Your task to perform on an android device: turn off data saver in the chrome app Image 0: 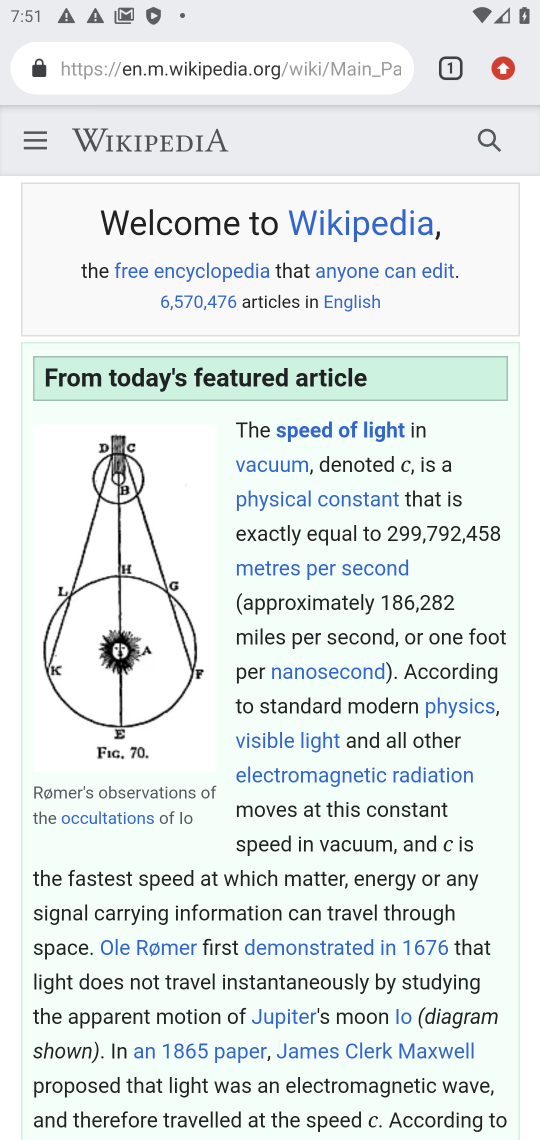
Step 0: click (501, 62)
Your task to perform on an android device: turn off data saver in the chrome app Image 1: 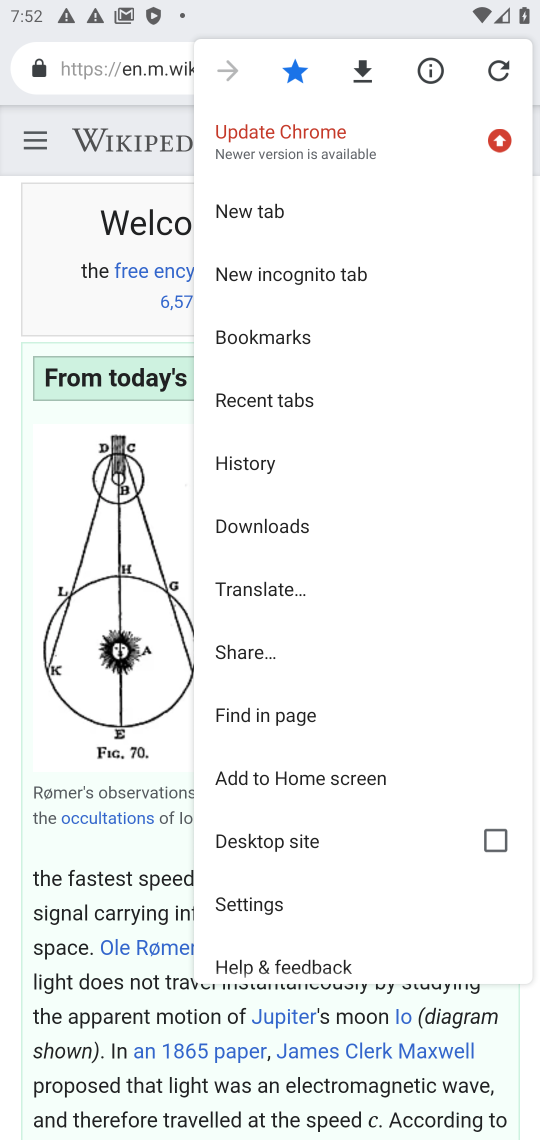
Step 1: click (282, 899)
Your task to perform on an android device: turn off data saver in the chrome app Image 2: 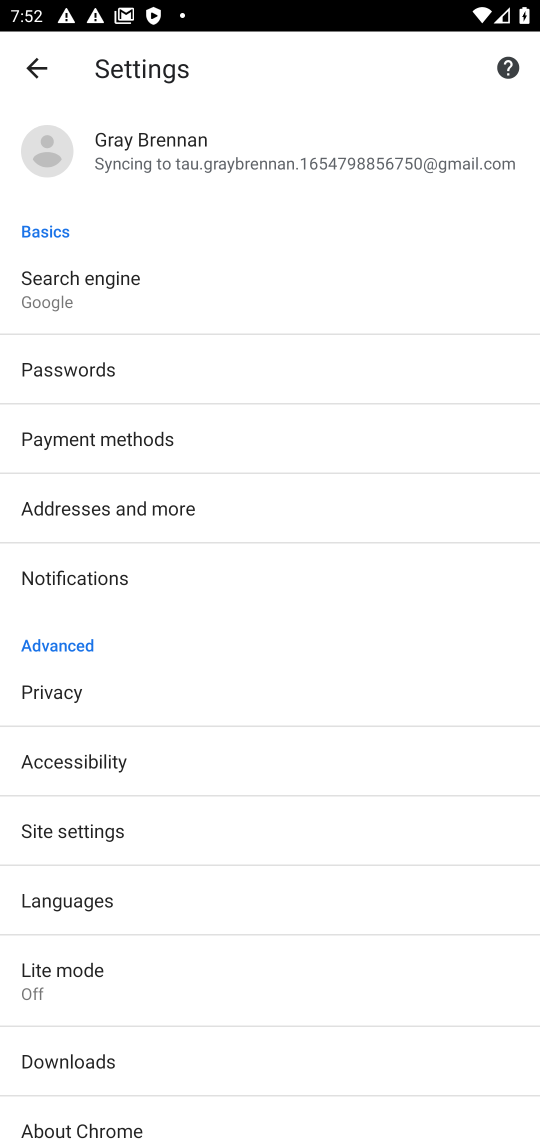
Step 2: click (103, 995)
Your task to perform on an android device: turn off data saver in the chrome app Image 3: 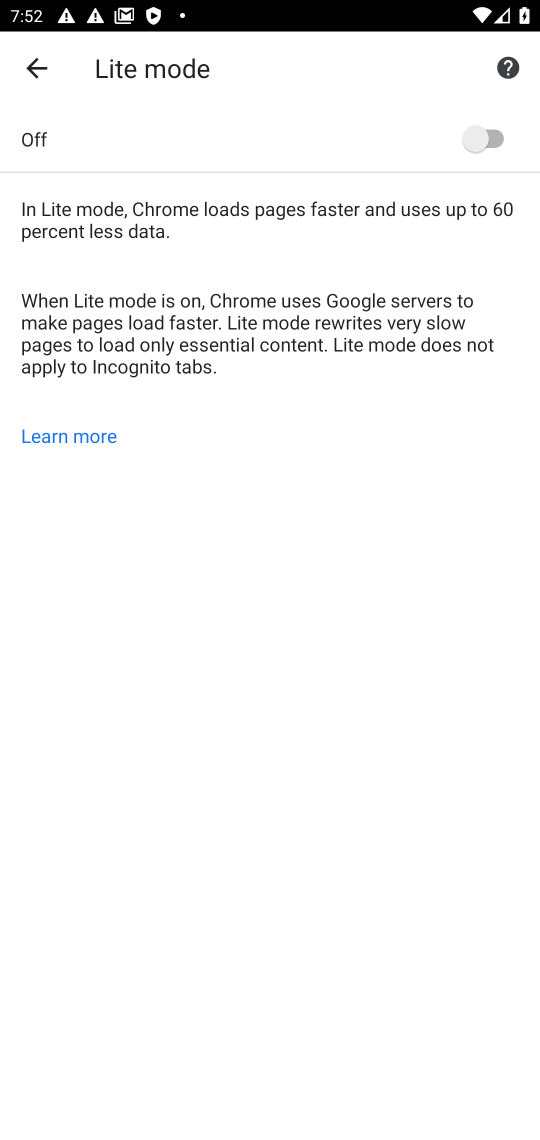
Step 3: task complete